Your task to perform on an android device: set the stopwatch Image 0: 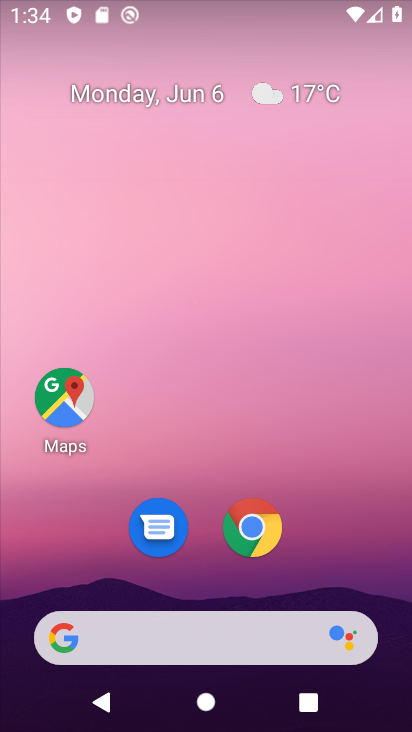
Step 0: drag from (234, 701) to (237, 106)
Your task to perform on an android device: set the stopwatch Image 1: 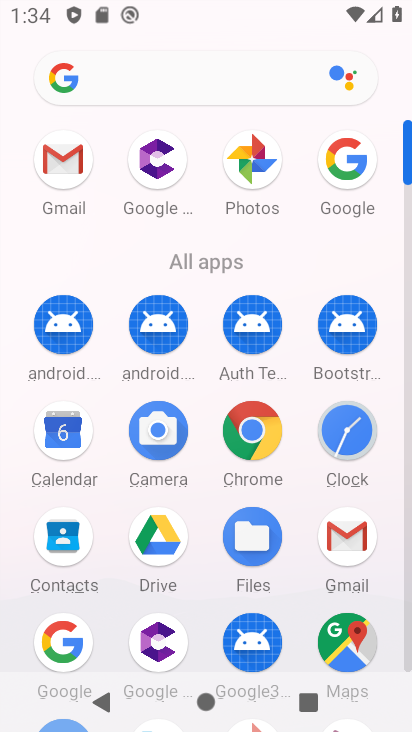
Step 1: click (350, 426)
Your task to perform on an android device: set the stopwatch Image 2: 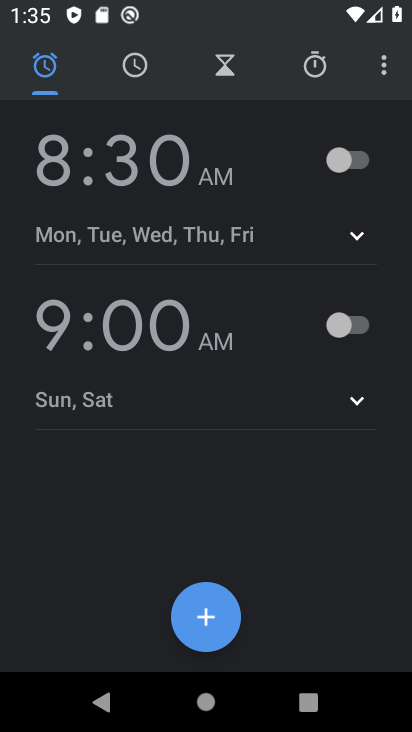
Step 2: click (318, 62)
Your task to perform on an android device: set the stopwatch Image 3: 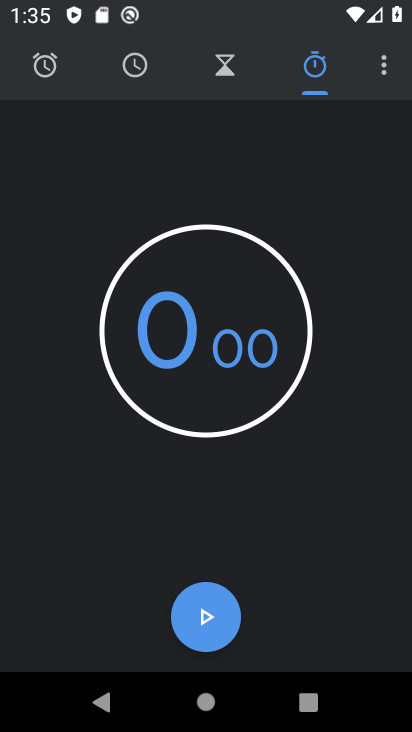
Step 3: click (211, 342)
Your task to perform on an android device: set the stopwatch Image 4: 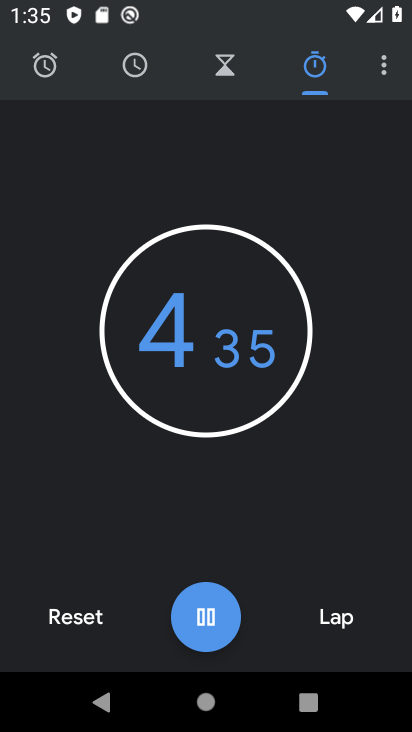
Step 4: type "888"
Your task to perform on an android device: set the stopwatch Image 5: 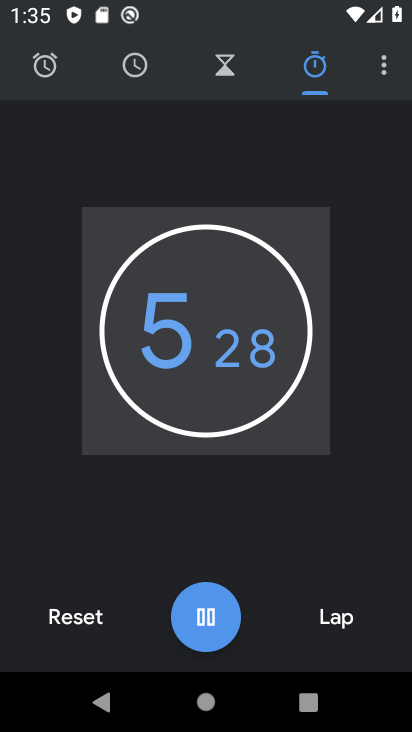
Step 5: type ""
Your task to perform on an android device: set the stopwatch Image 6: 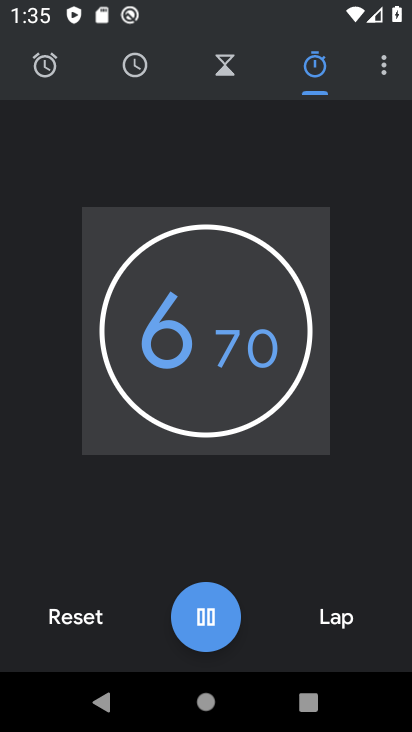
Step 6: task complete